Your task to perform on an android device: add a contact Image 0: 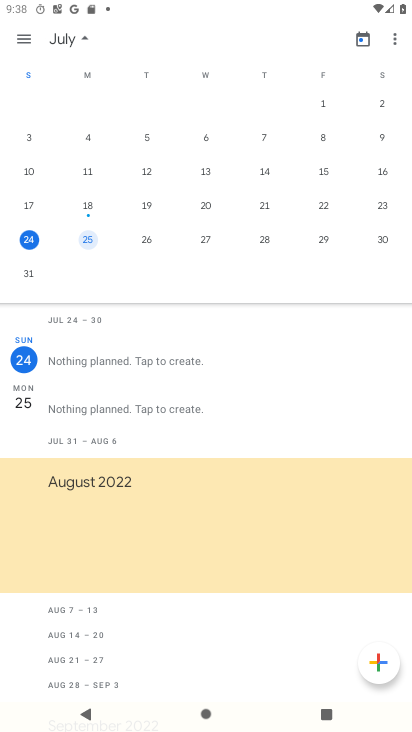
Step 0: press home button
Your task to perform on an android device: add a contact Image 1: 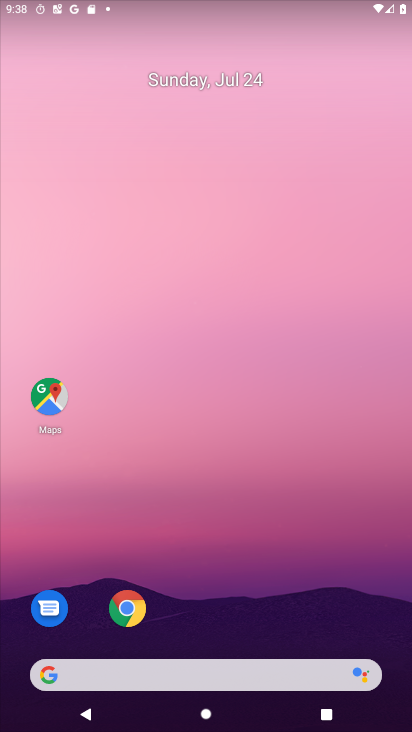
Step 1: drag from (248, 630) to (227, 357)
Your task to perform on an android device: add a contact Image 2: 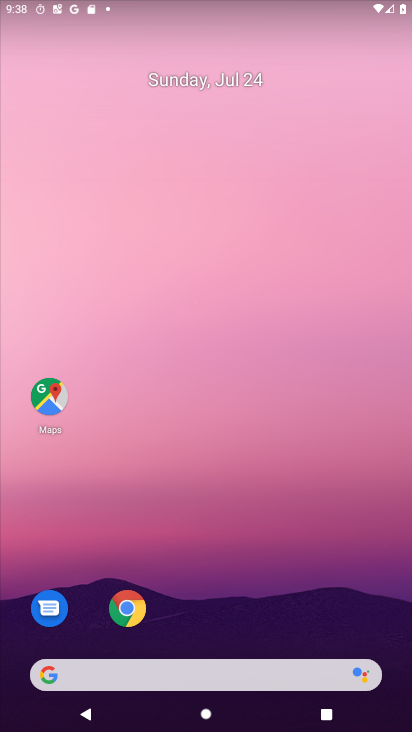
Step 2: drag from (194, 623) to (346, 5)
Your task to perform on an android device: add a contact Image 3: 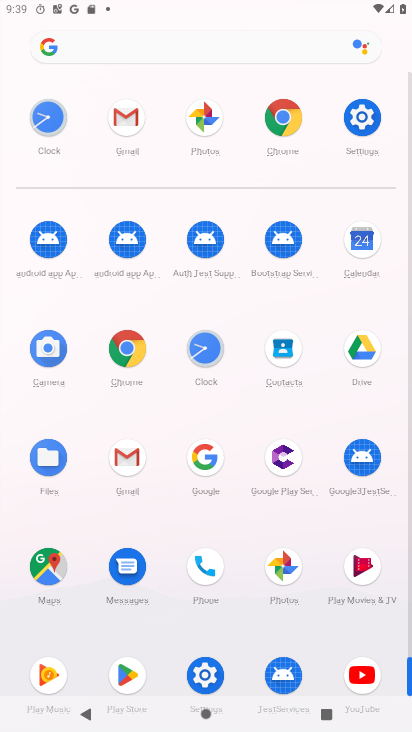
Step 3: click (189, 577)
Your task to perform on an android device: add a contact Image 4: 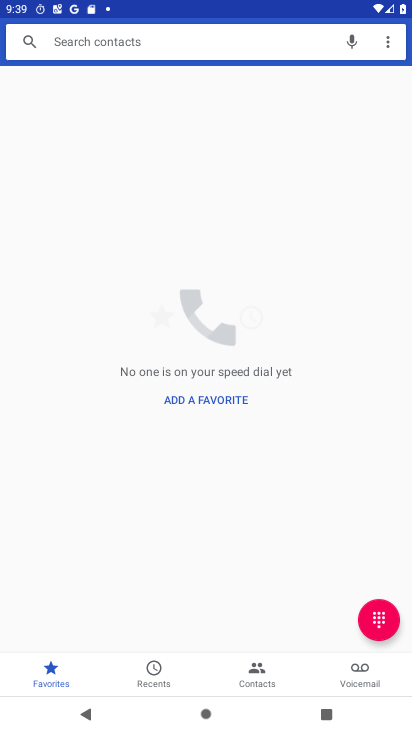
Step 4: click (257, 685)
Your task to perform on an android device: add a contact Image 5: 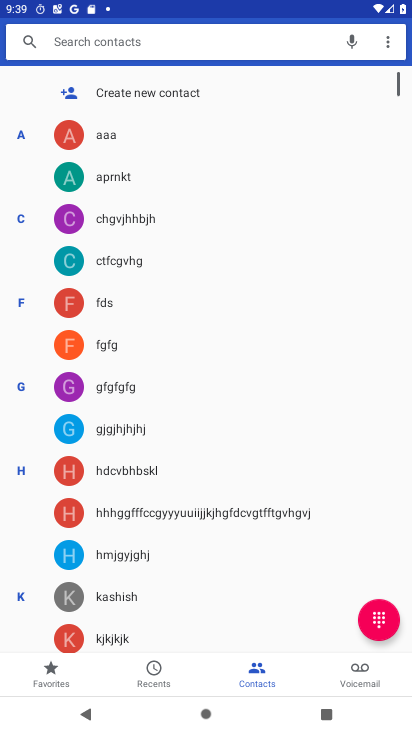
Step 5: click (176, 99)
Your task to perform on an android device: add a contact Image 6: 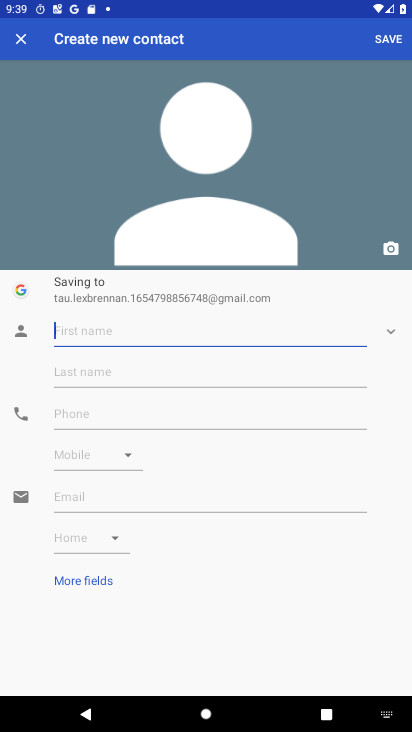
Step 6: type "okjhgbvcx"
Your task to perform on an android device: add a contact Image 7: 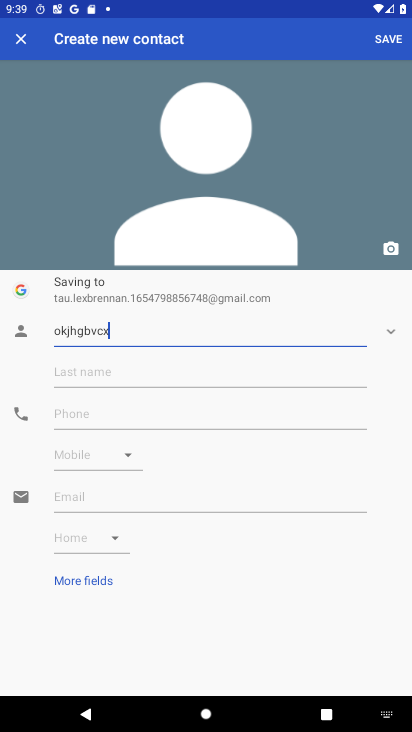
Step 7: click (134, 405)
Your task to perform on an android device: add a contact Image 8: 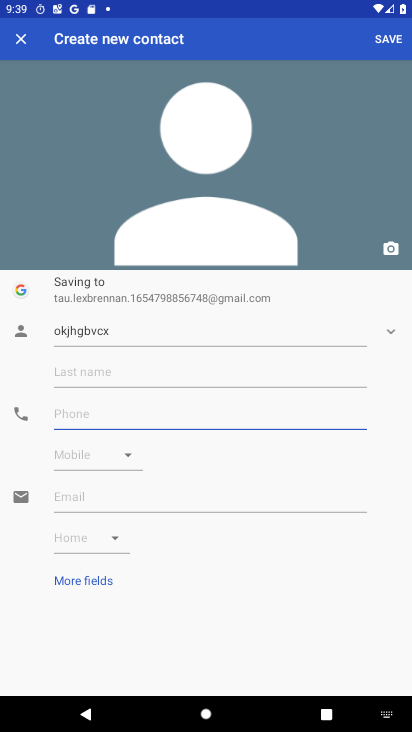
Step 8: type "23456789087"
Your task to perform on an android device: add a contact Image 9: 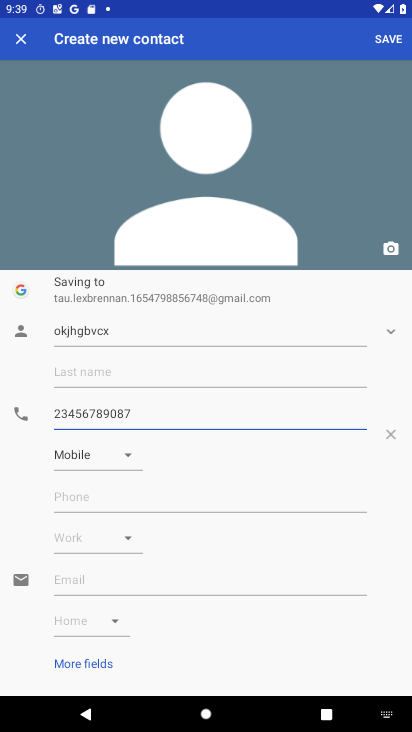
Step 9: click (395, 36)
Your task to perform on an android device: add a contact Image 10: 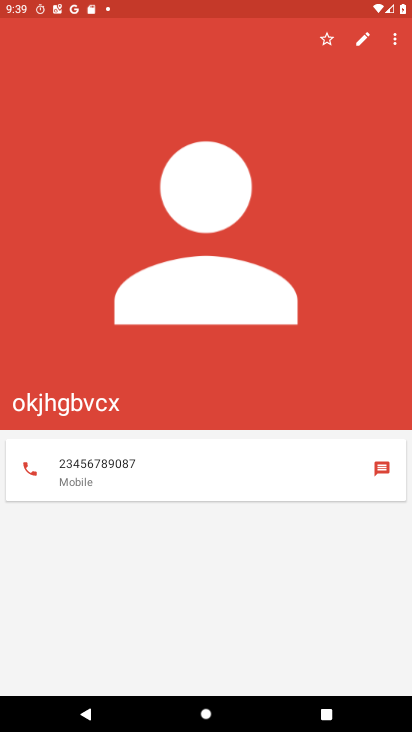
Step 10: task complete